Your task to perform on an android device: stop showing notifications on the lock screen Image 0: 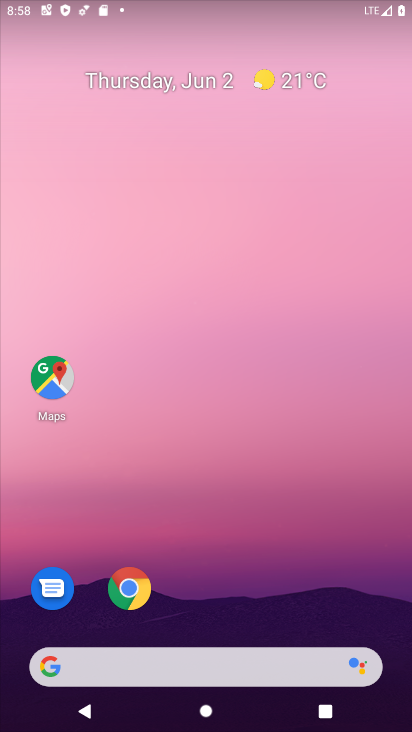
Step 0: drag from (205, 612) to (247, 17)
Your task to perform on an android device: stop showing notifications on the lock screen Image 1: 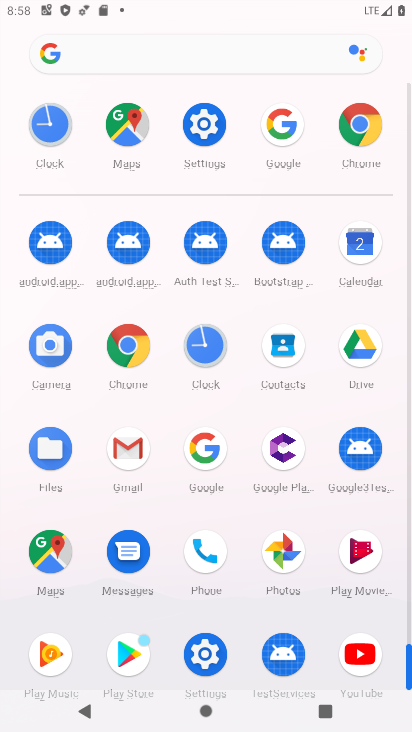
Step 1: click (198, 126)
Your task to perform on an android device: stop showing notifications on the lock screen Image 2: 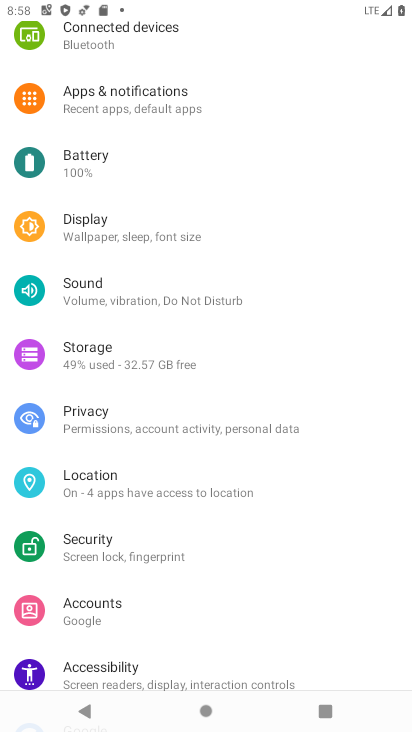
Step 2: click (207, 103)
Your task to perform on an android device: stop showing notifications on the lock screen Image 3: 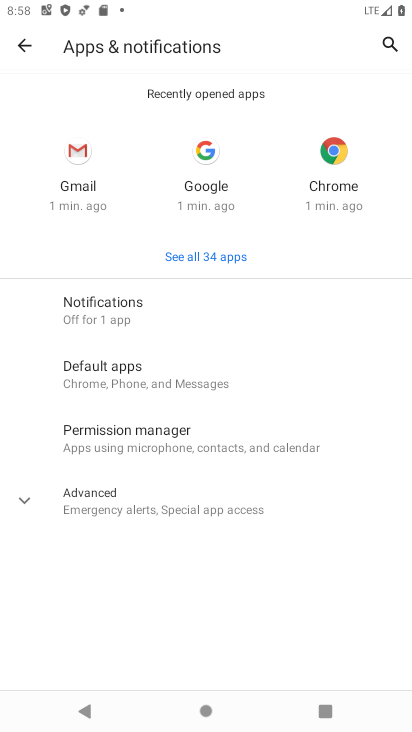
Step 3: click (174, 313)
Your task to perform on an android device: stop showing notifications on the lock screen Image 4: 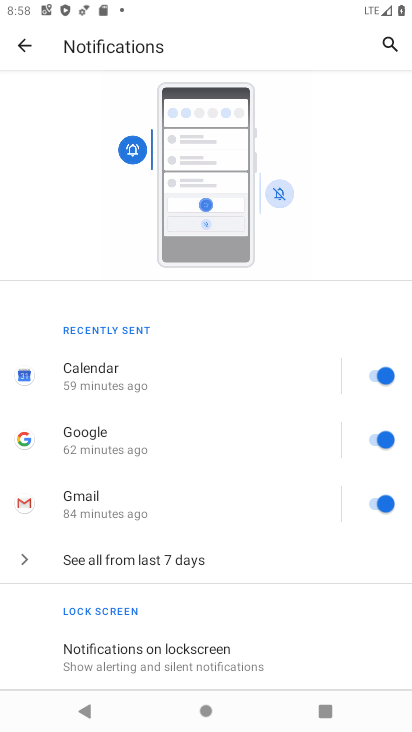
Step 4: click (164, 637)
Your task to perform on an android device: stop showing notifications on the lock screen Image 5: 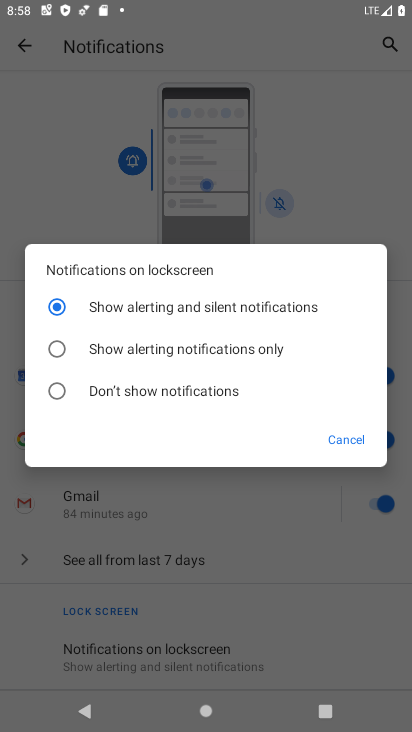
Step 5: click (193, 388)
Your task to perform on an android device: stop showing notifications on the lock screen Image 6: 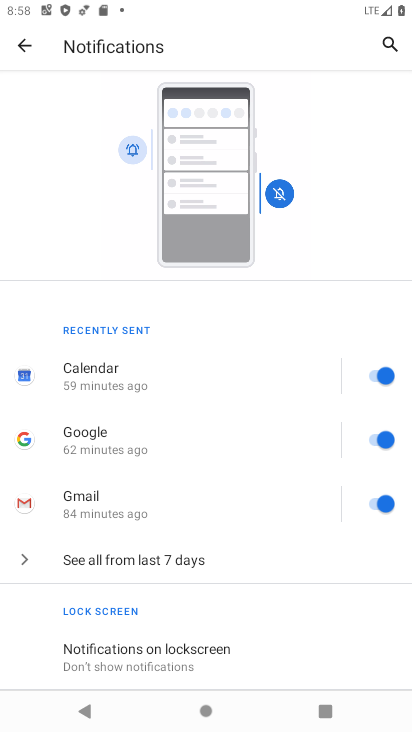
Step 6: task complete